Your task to perform on an android device: turn on showing notifications on the lock screen Image 0: 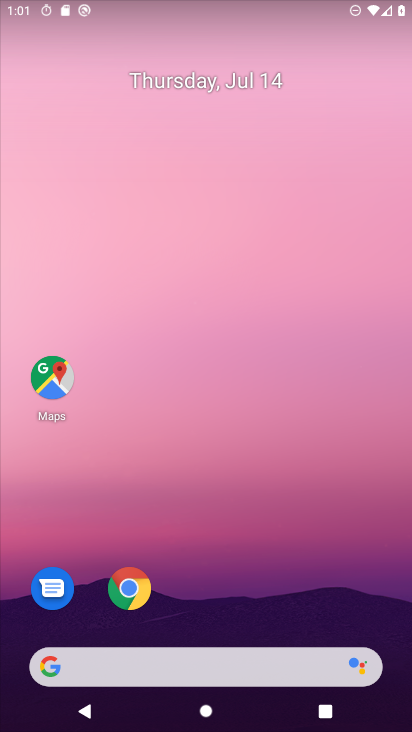
Step 0: drag from (194, 643) to (304, 184)
Your task to perform on an android device: turn on showing notifications on the lock screen Image 1: 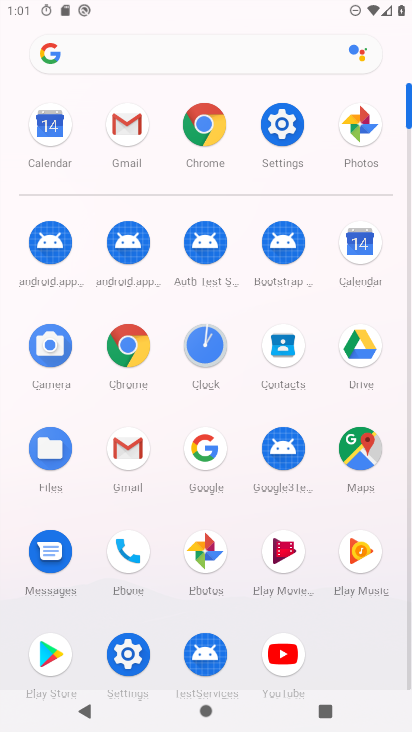
Step 1: click (283, 125)
Your task to perform on an android device: turn on showing notifications on the lock screen Image 2: 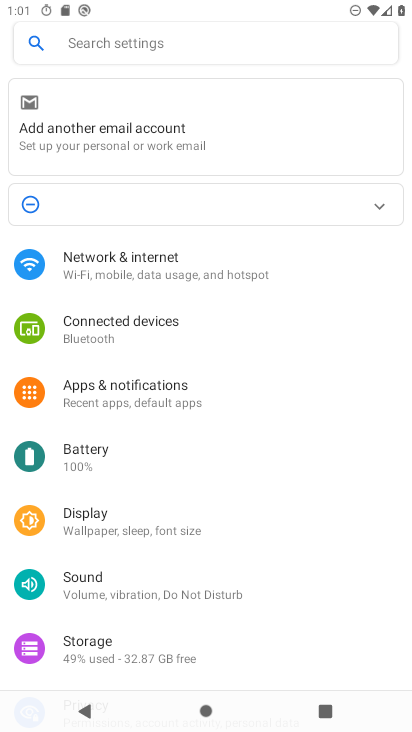
Step 2: click (155, 396)
Your task to perform on an android device: turn on showing notifications on the lock screen Image 3: 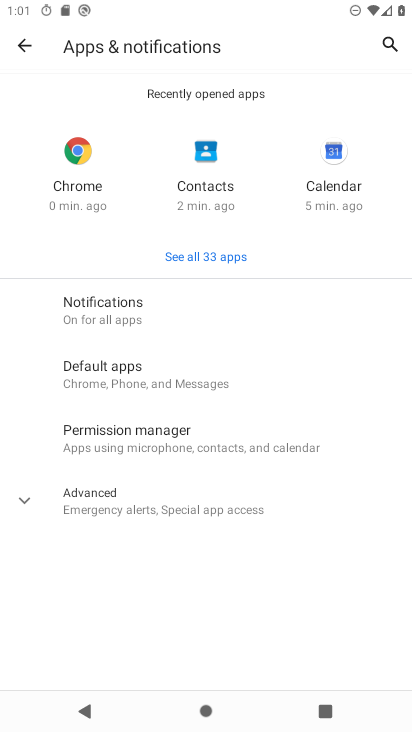
Step 3: click (113, 320)
Your task to perform on an android device: turn on showing notifications on the lock screen Image 4: 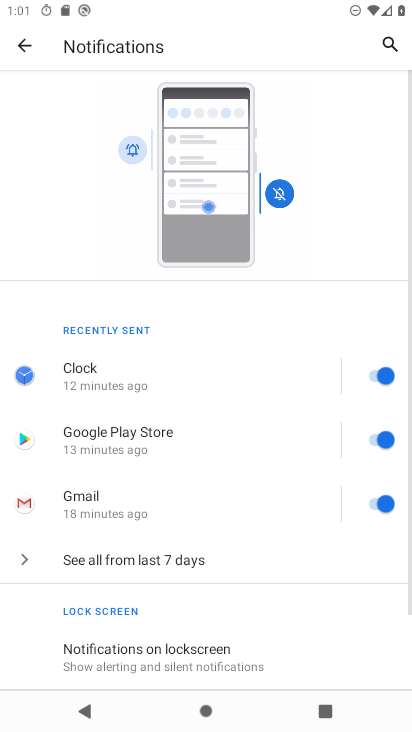
Step 4: drag from (183, 611) to (298, 294)
Your task to perform on an android device: turn on showing notifications on the lock screen Image 5: 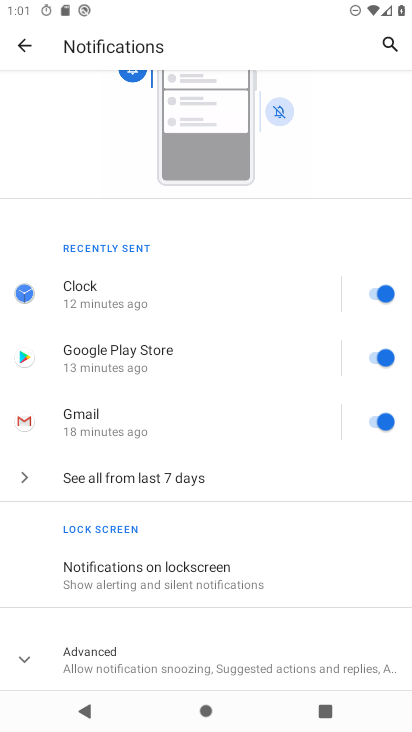
Step 5: click (176, 567)
Your task to perform on an android device: turn on showing notifications on the lock screen Image 6: 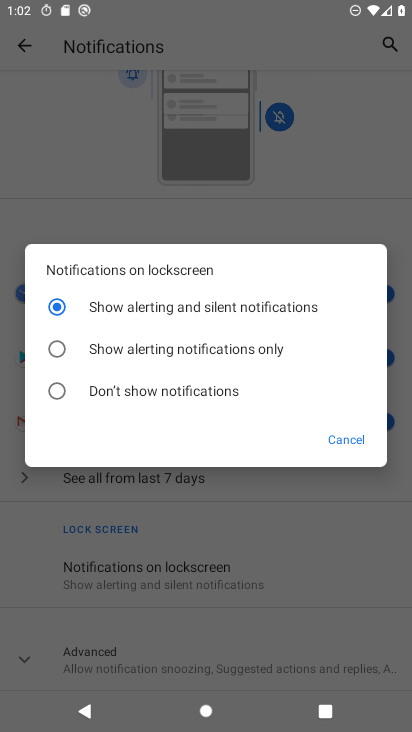
Step 6: task complete